Your task to perform on an android device: Clear the cart on costco.com. Search for "razer huntsman" on costco.com, select the first entry, and add it to the cart. Image 0: 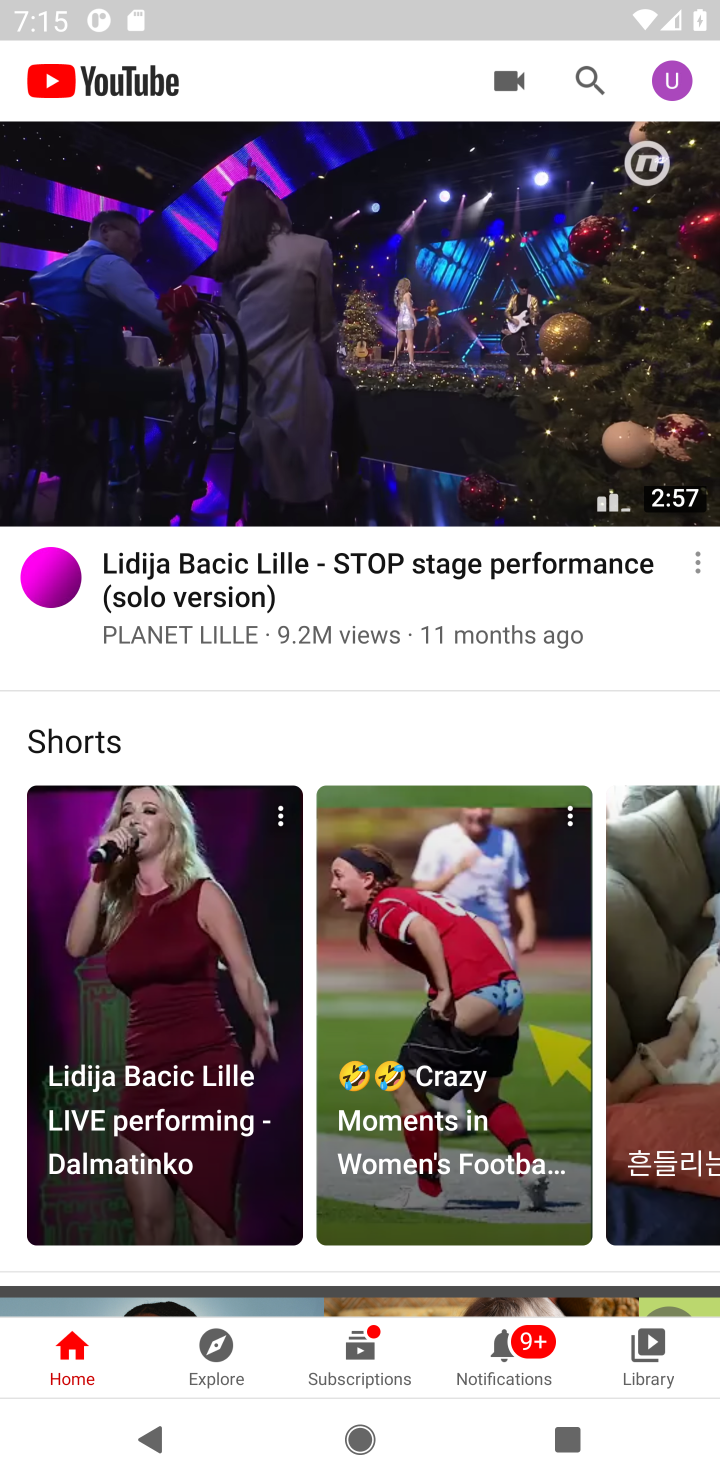
Step 0: press home button
Your task to perform on an android device: Clear the cart on costco.com. Search for "razer huntsman" on costco.com, select the first entry, and add it to the cart. Image 1: 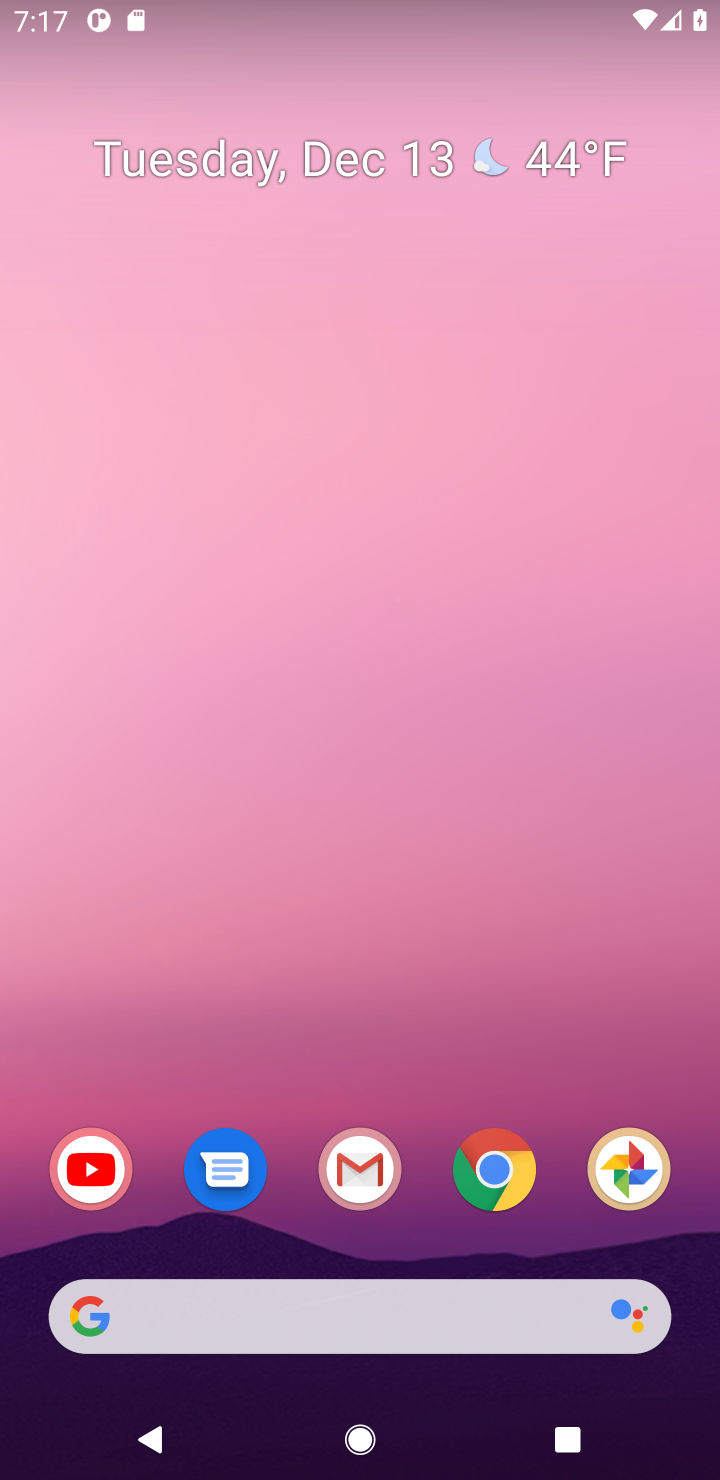
Step 1: click (468, 1170)
Your task to perform on an android device: Clear the cart on costco.com. Search for "razer huntsman" on costco.com, select the first entry, and add it to the cart. Image 2: 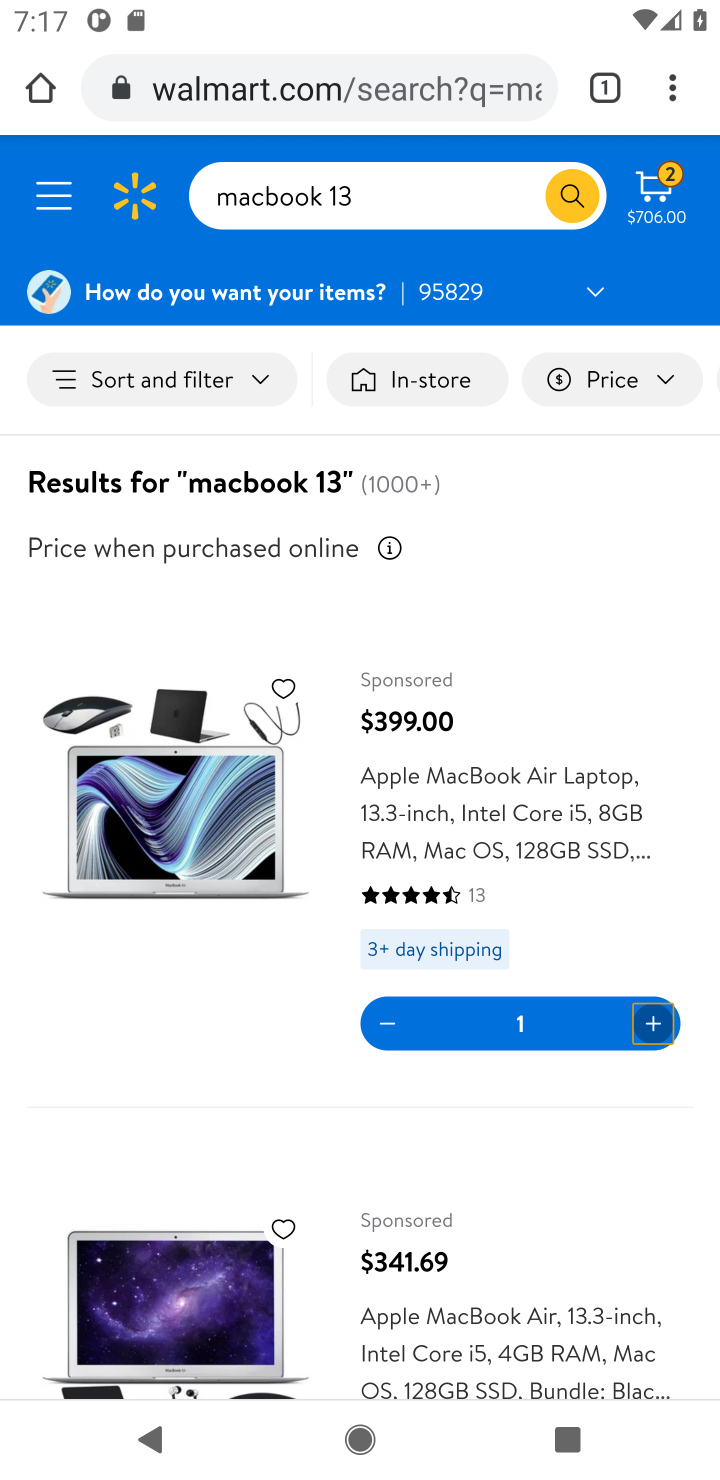
Step 2: click (656, 1029)
Your task to perform on an android device: Clear the cart on costco.com. Search for "razer huntsman" on costco.com, select the first entry, and add it to the cart. Image 3: 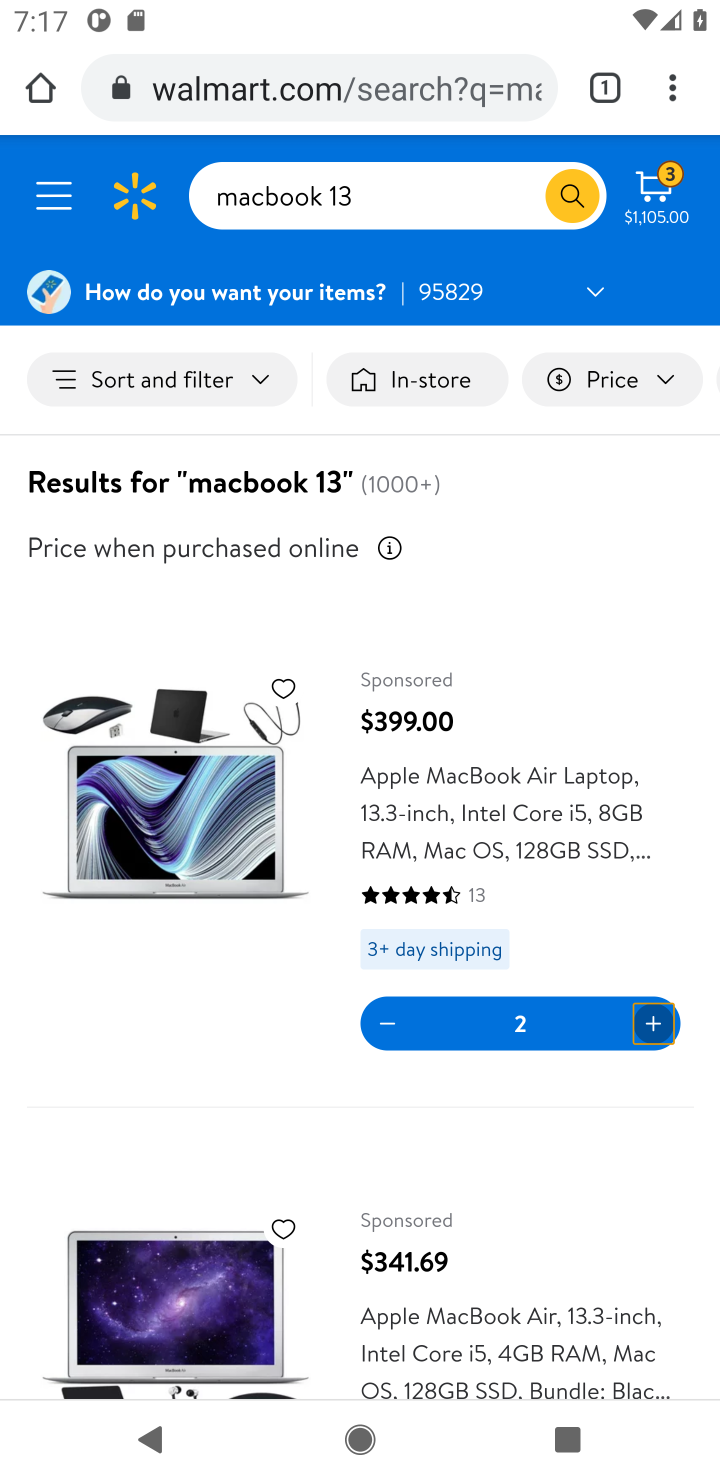
Step 3: task complete